Your task to perform on an android device: see sites visited before in the chrome app Image 0: 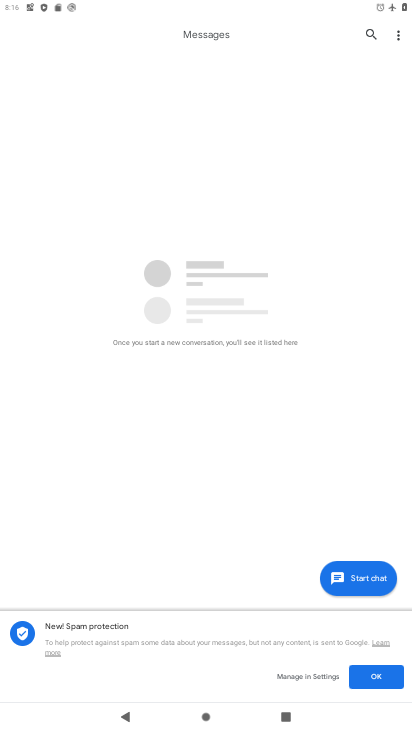
Step 0: click (138, 685)
Your task to perform on an android device: see sites visited before in the chrome app Image 1: 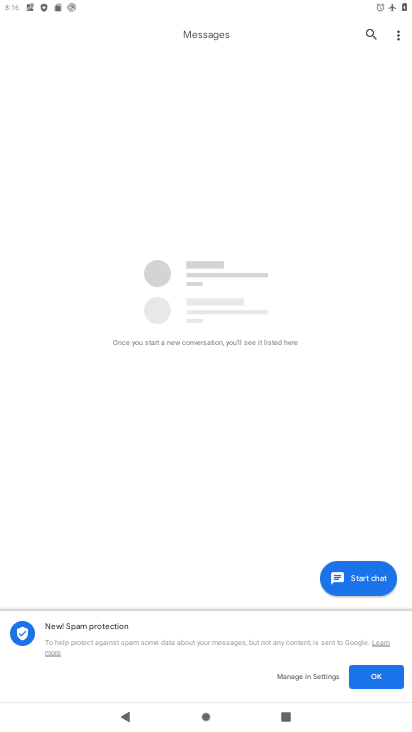
Step 1: press home button
Your task to perform on an android device: see sites visited before in the chrome app Image 2: 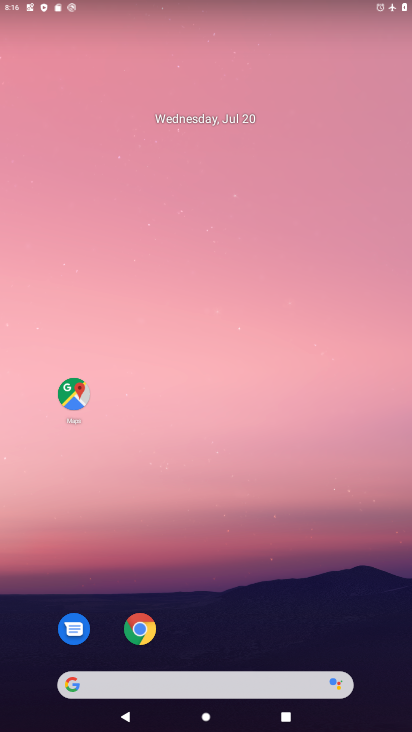
Step 2: drag from (183, 310) to (184, 94)
Your task to perform on an android device: see sites visited before in the chrome app Image 3: 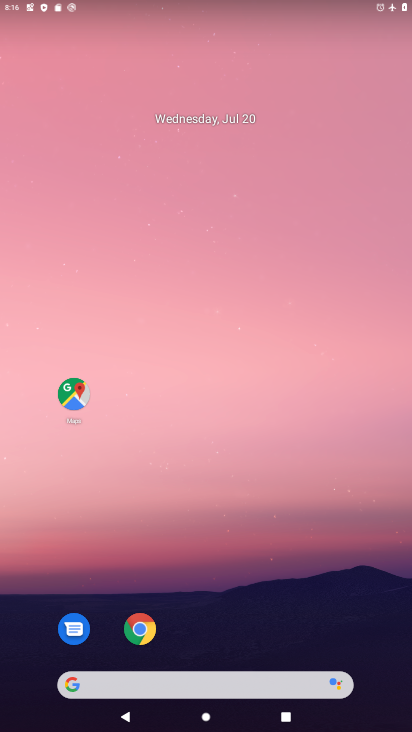
Step 3: drag from (198, 575) to (190, 103)
Your task to perform on an android device: see sites visited before in the chrome app Image 4: 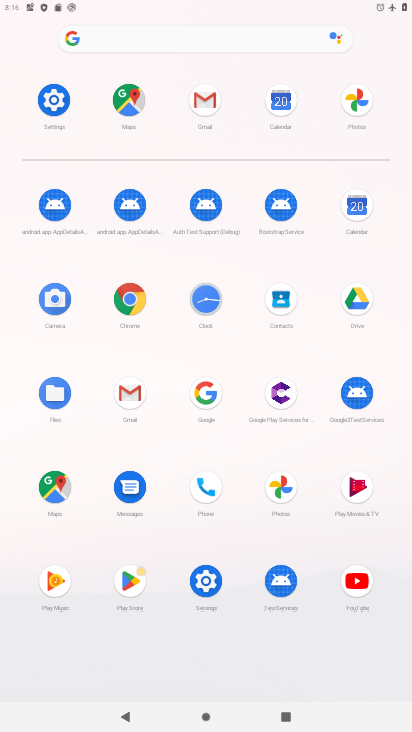
Step 4: click (126, 296)
Your task to perform on an android device: see sites visited before in the chrome app Image 5: 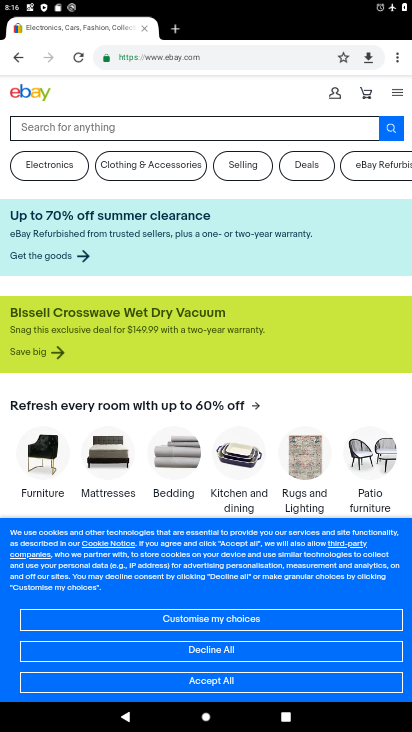
Step 5: click (397, 61)
Your task to perform on an android device: see sites visited before in the chrome app Image 6: 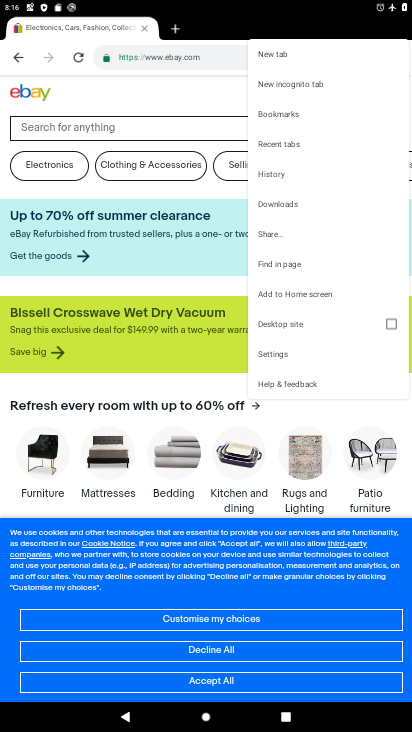
Step 6: click (274, 170)
Your task to perform on an android device: see sites visited before in the chrome app Image 7: 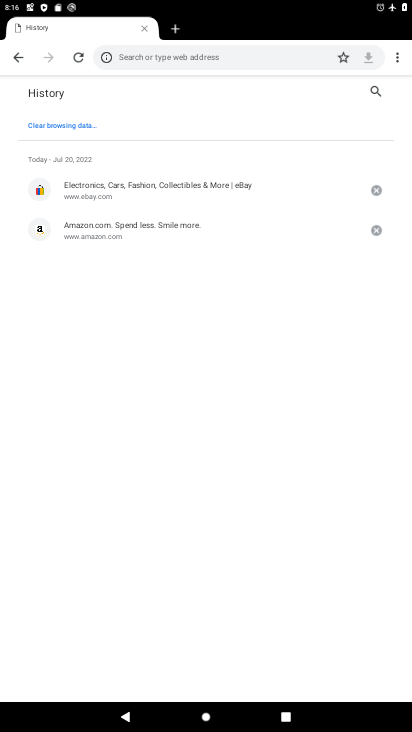
Step 7: task complete